Your task to perform on an android device: see tabs open on other devices in the chrome app Image 0: 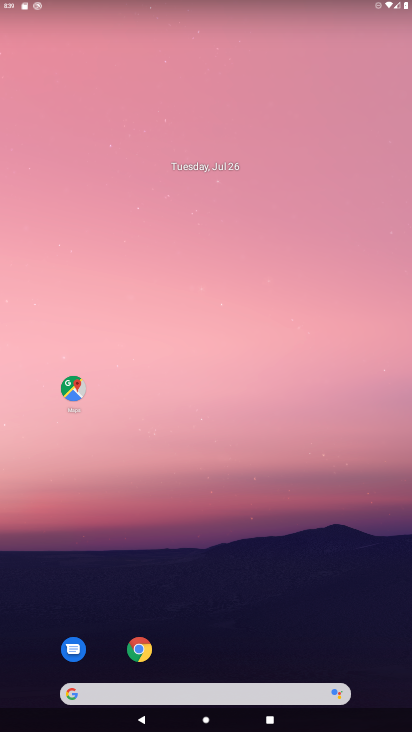
Step 0: click (132, 663)
Your task to perform on an android device: see tabs open on other devices in the chrome app Image 1: 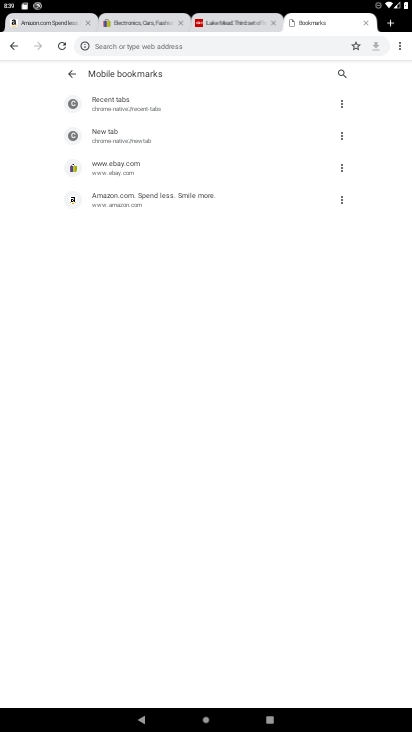
Step 1: click (403, 51)
Your task to perform on an android device: see tabs open on other devices in the chrome app Image 2: 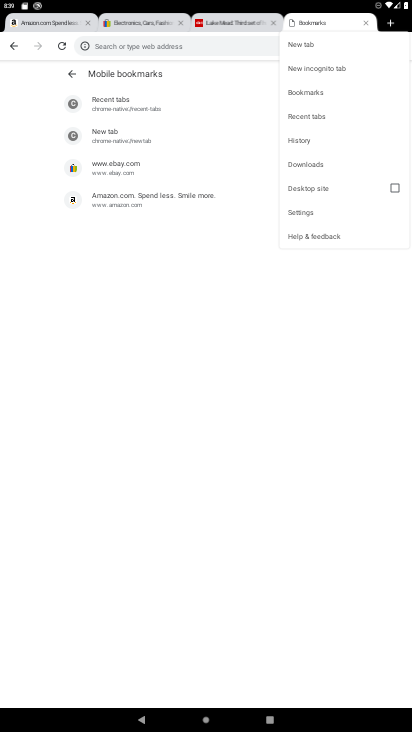
Step 2: click (325, 110)
Your task to perform on an android device: see tabs open on other devices in the chrome app Image 3: 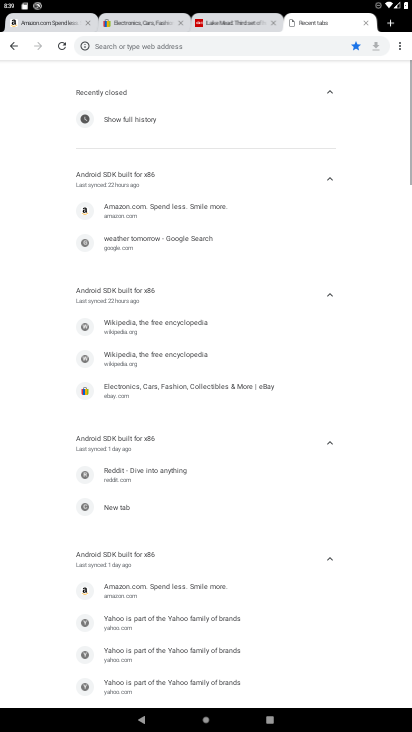
Step 3: task complete